Your task to perform on an android device: turn on data saver in the chrome app Image 0: 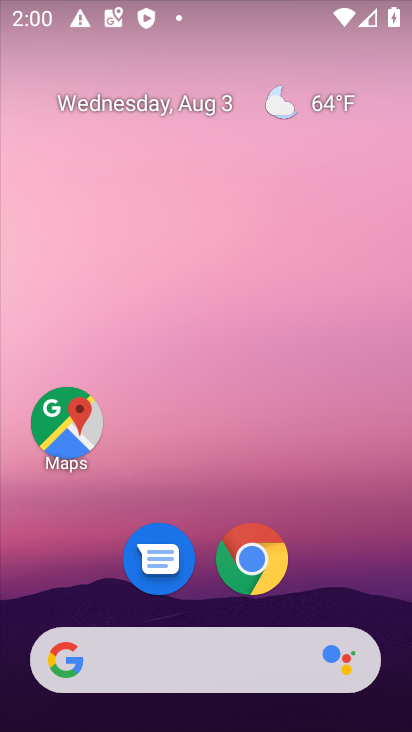
Step 0: click (255, 556)
Your task to perform on an android device: turn on data saver in the chrome app Image 1: 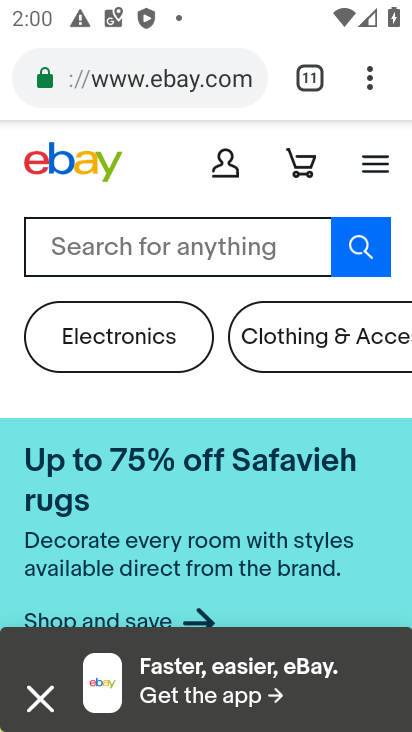
Step 1: click (372, 83)
Your task to perform on an android device: turn on data saver in the chrome app Image 2: 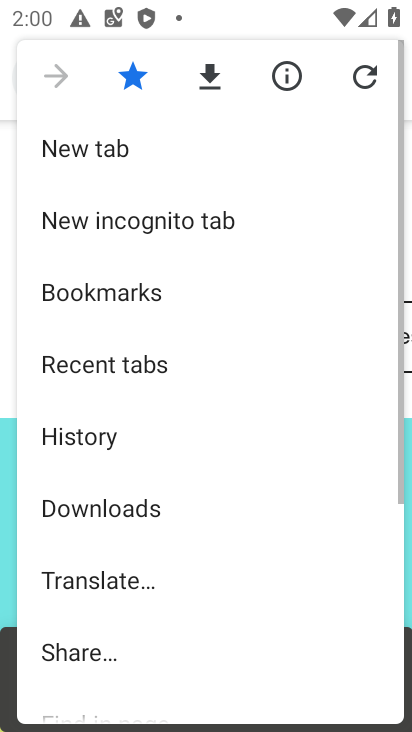
Step 2: drag from (105, 620) to (133, 238)
Your task to perform on an android device: turn on data saver in the chrome app Image 3: 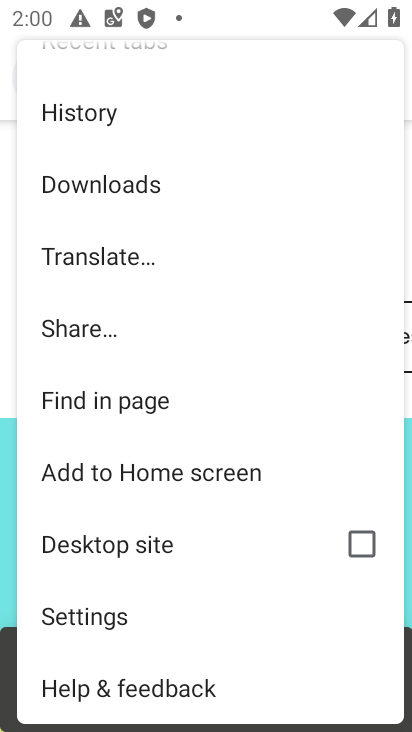
Step 3: click (76, 615)
Your task to perform on an android device: turn on data saver in the chrome app Image 4: 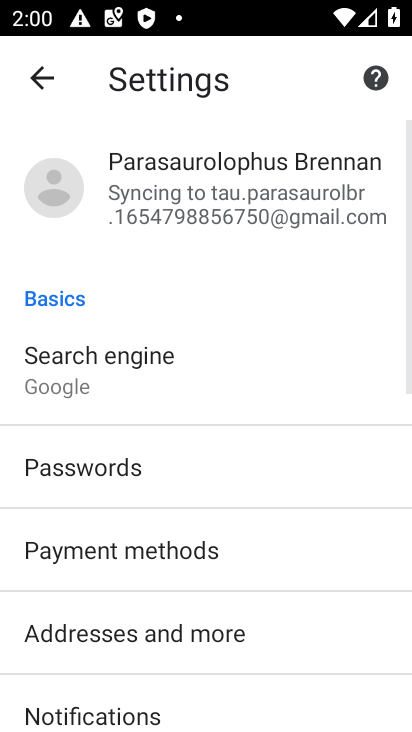
Step 4: drag from (131, 685) to (144, 322)
Your task to perform on an android device: turn on data saver in the chrome app Image 5: 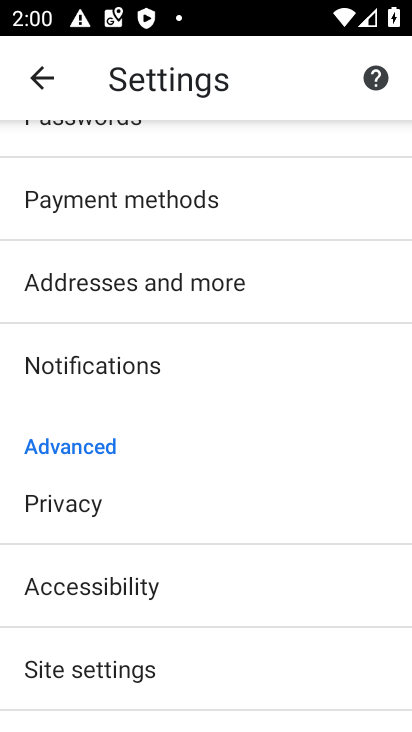
Step 5: drag from (133, 671) to (149, 293)
Your task to perform on an android device: turn on data saver in the chrome app Image 6: 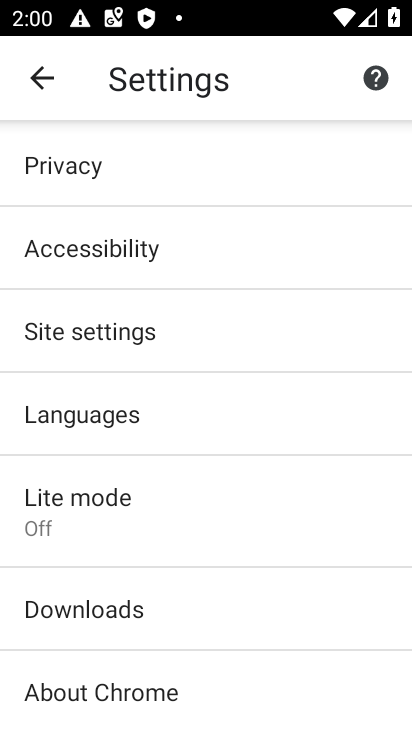
Step 6: click (89, 494)
Your task to perform on an android device: turn on data saver in the chrome app Image 7: 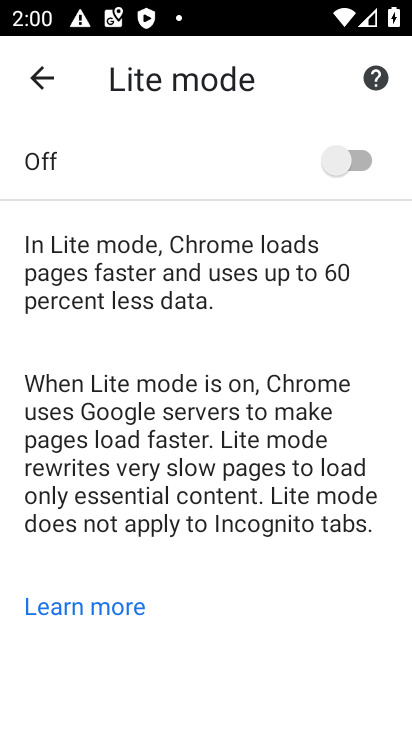
Step 7: click (360, 162)
Your task to perform on an android device: turn on data saver in the chrome app Image 8: 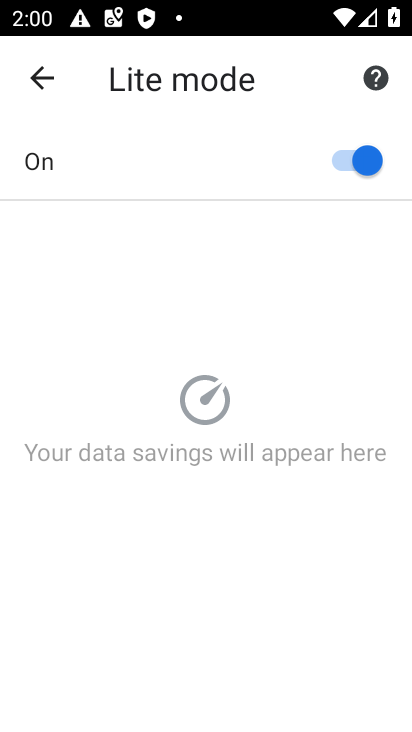
Step 8: task complete